Your task to perform on an android device: Open Google Maps and go to "Timeline" Image 0: 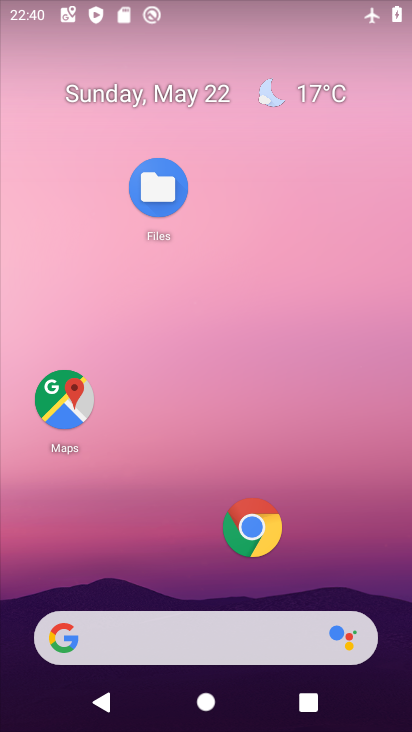
Step 0: click (63, 401)
Your task to perform on an android device: Open Google Maps and go to "Timeline" Image 1: 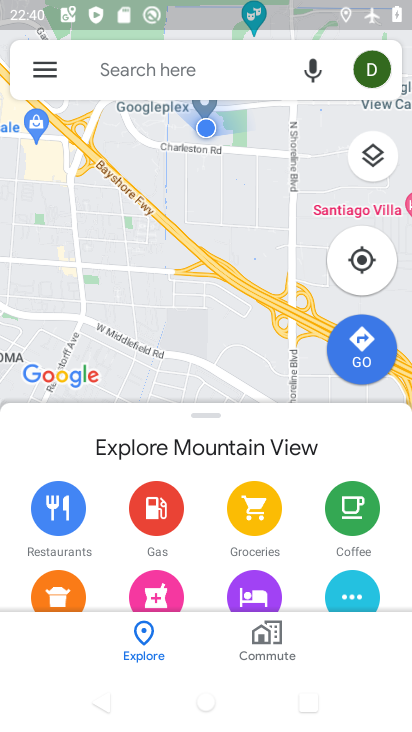
Step 1: click (43, 64)
Your task to perform on an android device: Open Google Maps and go to "Timeline" Image 2: 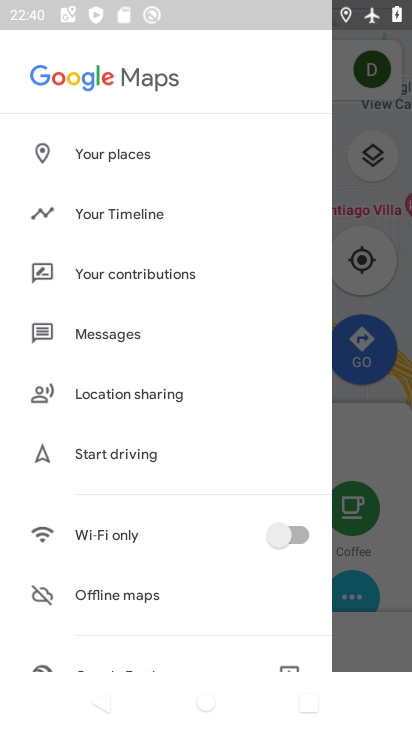
Step 2: click (111, 207)
Your task to perform on an android device: Open Google Maps and go to "Timeline" Image 3: 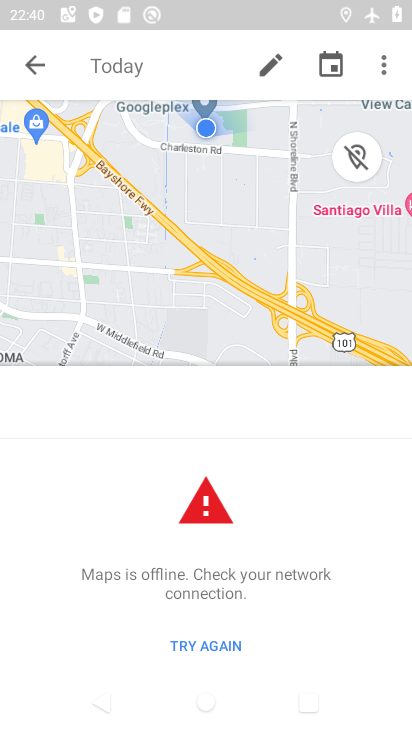
Step 3: task complete